Your task to perform on an android device: turn off location Image 0: 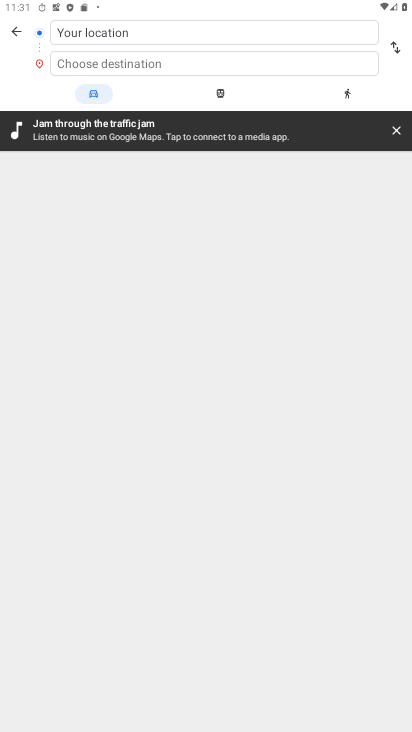
Step 0: press home button
Your task to perform on an android device: turn off location Image 1: 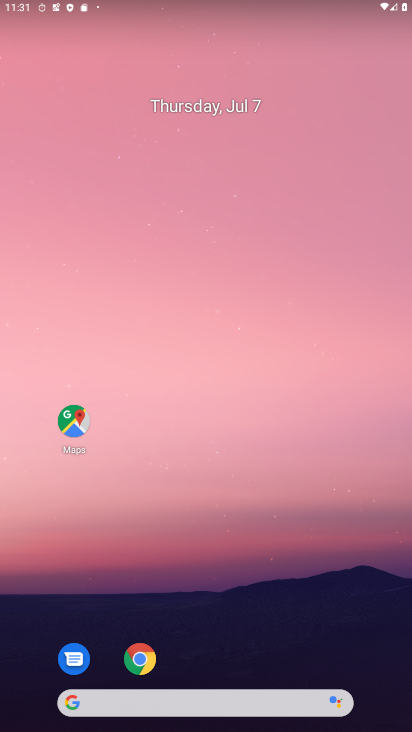
Step 1: drag from (226, 680) to (245, 38)
Your task to perform on an android device: turn off location Image 2: 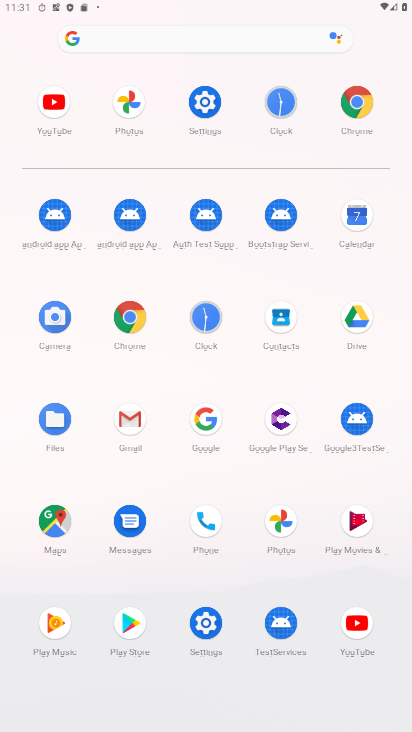
Step 2: click (204, 99)
Your task to perform on an android device: turn off location Image 3: 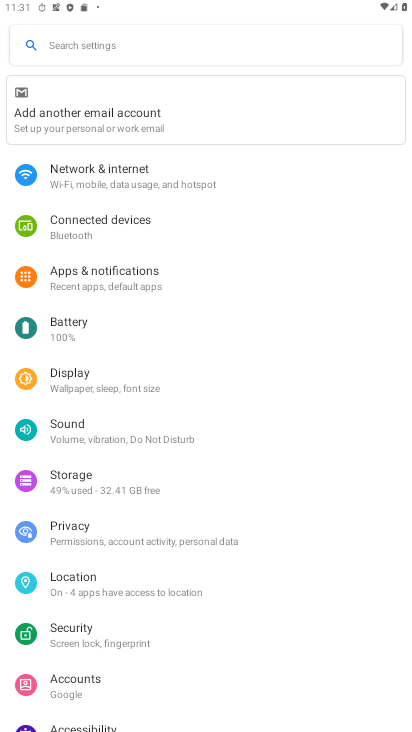
Step 3: click (108, 582)
Your task to perform on an android device: turn off location Image 4: 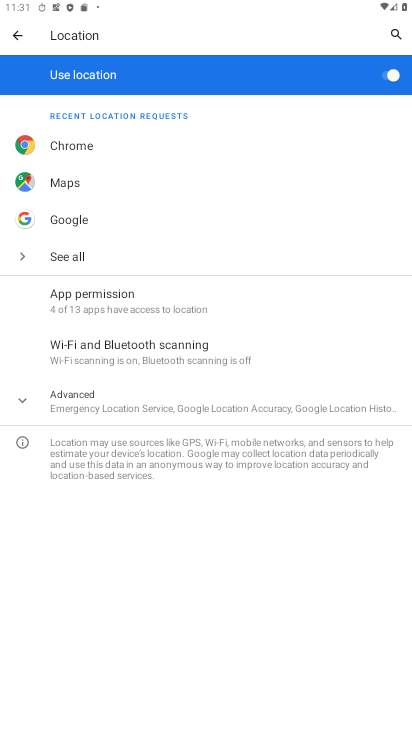
Step 4: click (384, 71)
Your task to perform on an android device: turn off location Image 5: 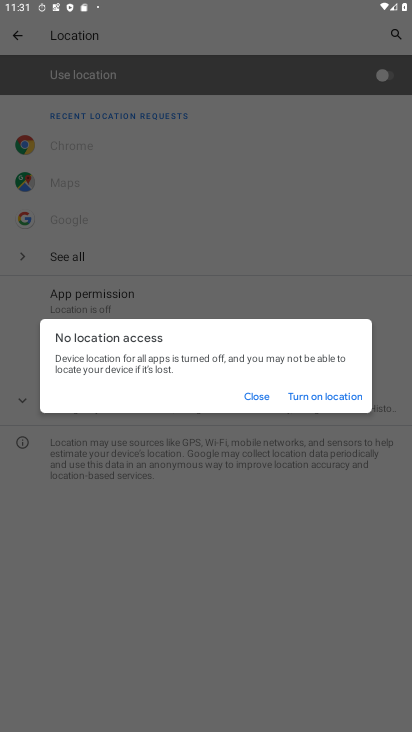
Step 5: task complete